Your task to perform on an android device: Show me popular videos on Youtube Image 0: 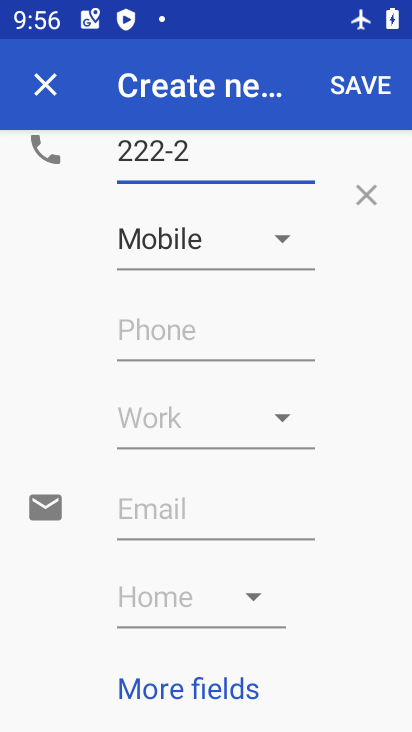
Step 0: press home button
Your task to perform on an android device: Show me popular videos on Youtube Image 1: 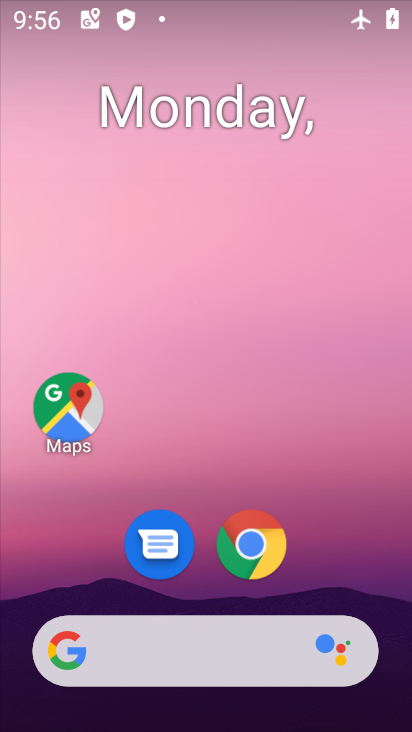
Step 1: drag from (314, 556) to (205, 60)
Your task to perform on an android device: Show me popular videos on Youtube Image 2: 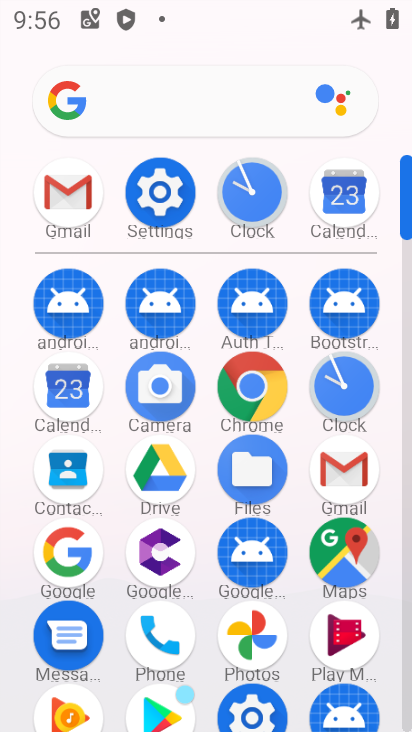
Step 2: drag from (210, 661) to (191, 201)
Your task to perform on an android device: Show me popular videos on Youtube Image 3: 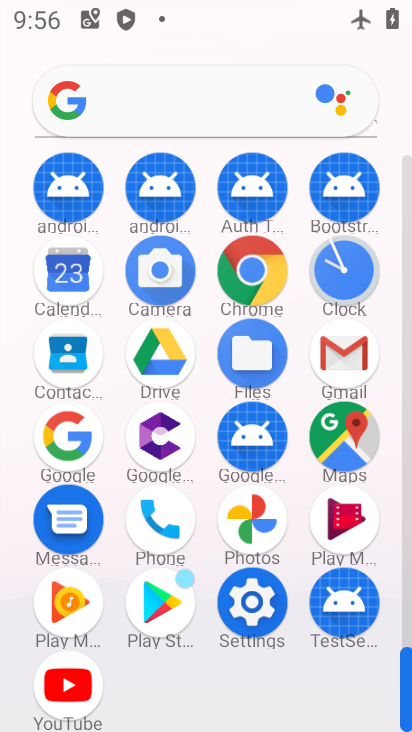
Step 3: click (74, 683)
Your task to perform on an android device: Show me popular videos on Youtube Image 4: 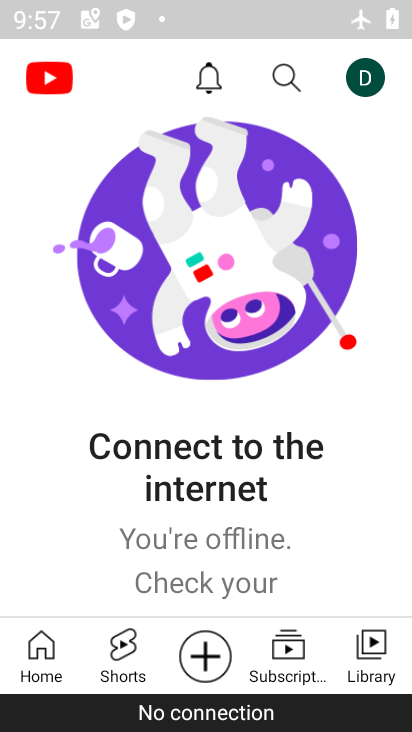
Step 4: click (121, 651)
Your task to perform on an android device: Show me popular videos on Youtube Image 5: 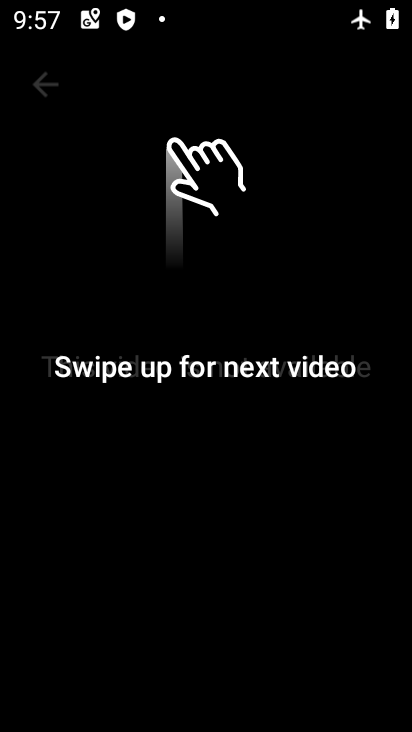
Step 5: task complete